Your task to perform on an android device: toggle improve location accuracy Image 0: 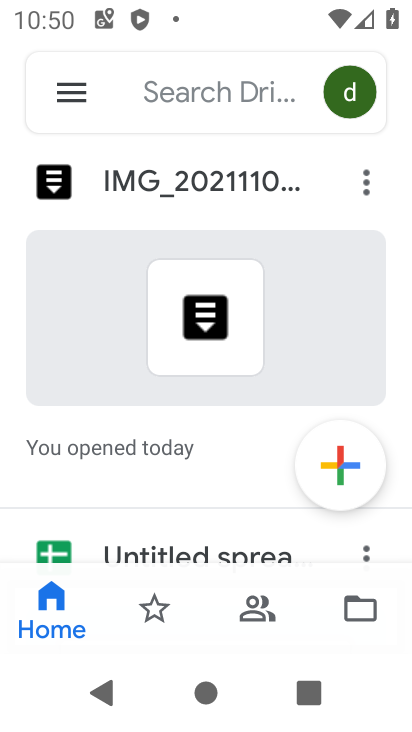
Step 0: press home button
Your task to perform on an android device: toggle improve location accuracy Image 1: 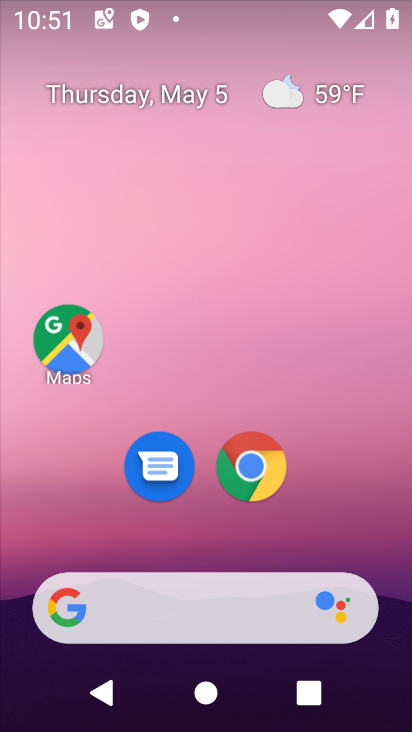
Step 1: drag from (338, 527) to (319, 184)
Your task to perform on an android device: toggle improve location accuracy Image 2: 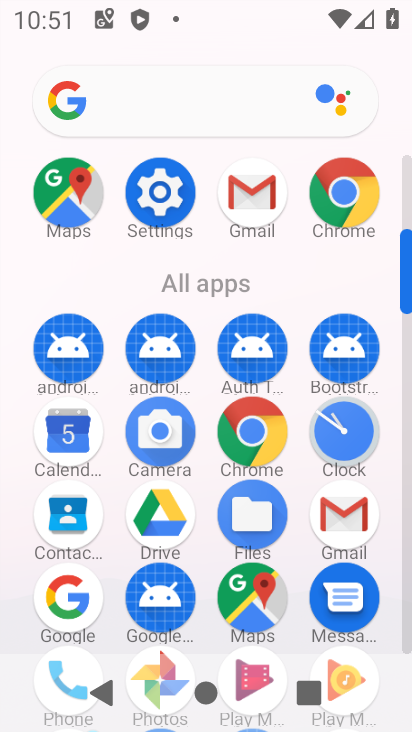
Step 2: click (156, 199)
Your task to perform on an android device: toggle improve location accuracy Image 3: 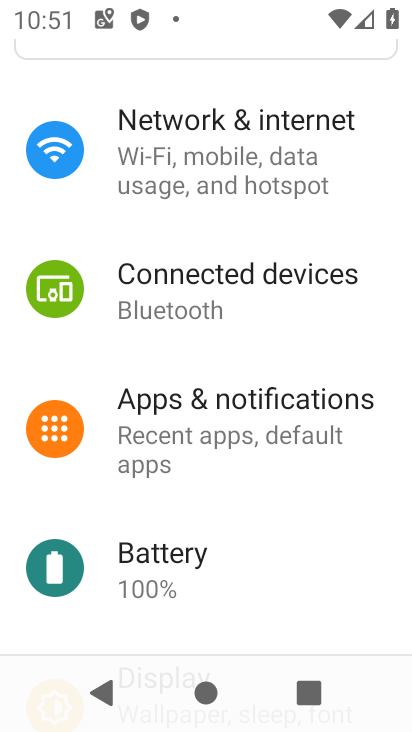
Step 3: drag from (232, 632) to (233, 229)
Your task to perform on an android device: toggle improve location accuracy Image 4: 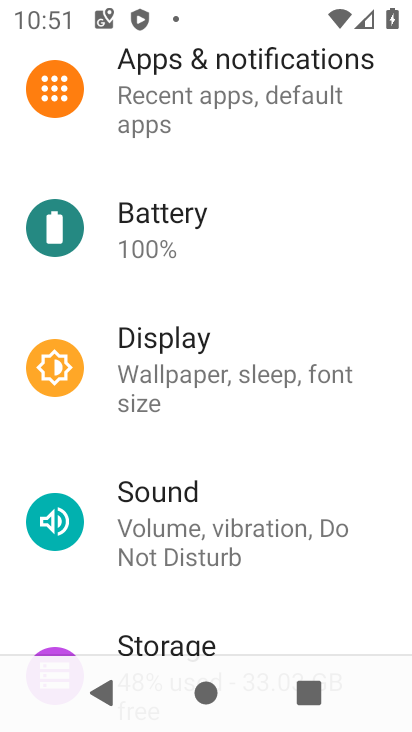
Step 4: drag from (204, 583) to (176, 261)
Your task to perform on an android device: toggle improve location accuracy Image 5: 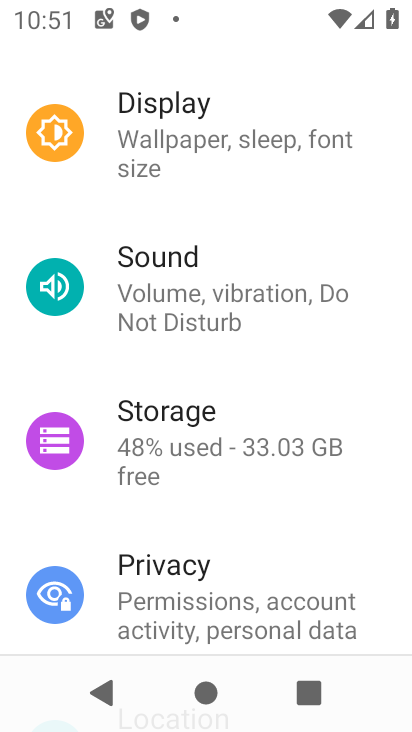
Step 5: drag from (171, 595) to (173, 372)
Your task to perform on an android device: toggle improve location accuracy Image 6: 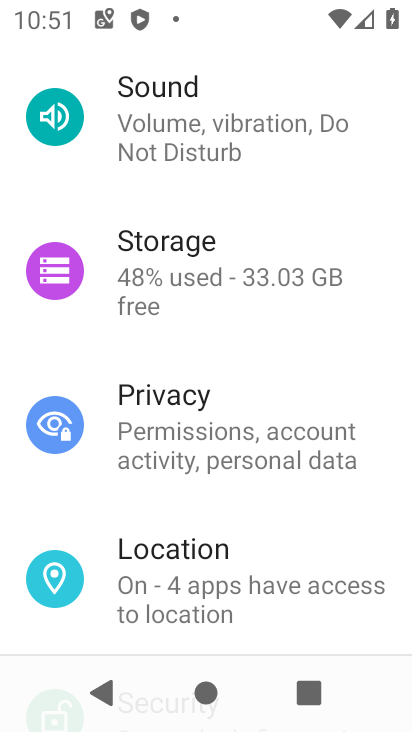
Step 6: click (141, 583)
Your task to perform on an android device: toggle improve location accuracy Image 7: 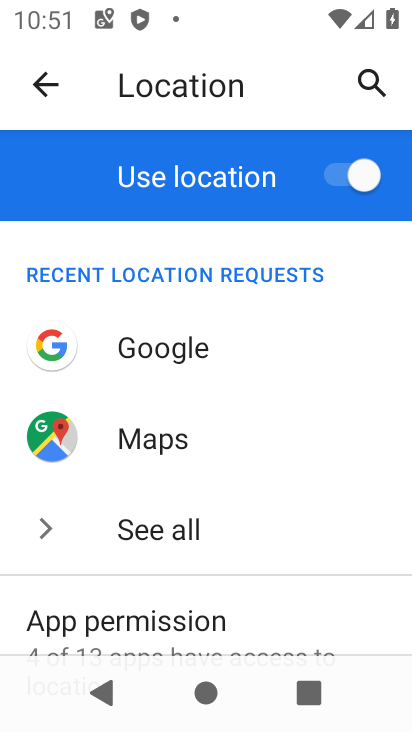
Step 7: drag from (141, 643) to (156, 413)
Your task to perform on an android device: toggle improve location accuracy Image 8: 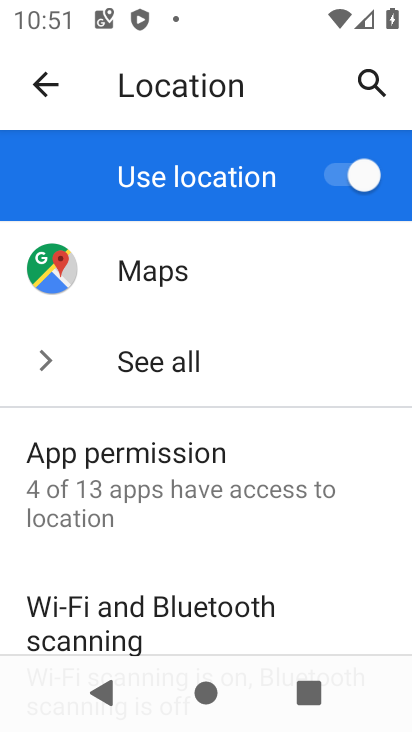
Step 8: drag from (161, 562) to (179, 237)
Your task to perform on an android device: toggle improve location accuracy Image 9: 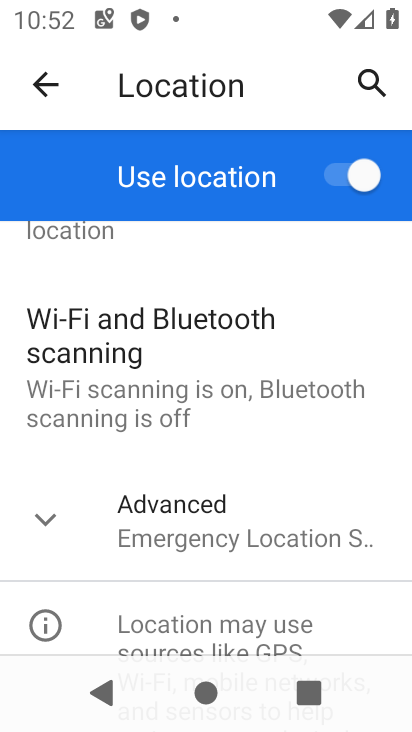
Step 9: drag from (175, 573) to (213, 299)
Your task to perform on an android device: toggle improve location accuracy Image 10: 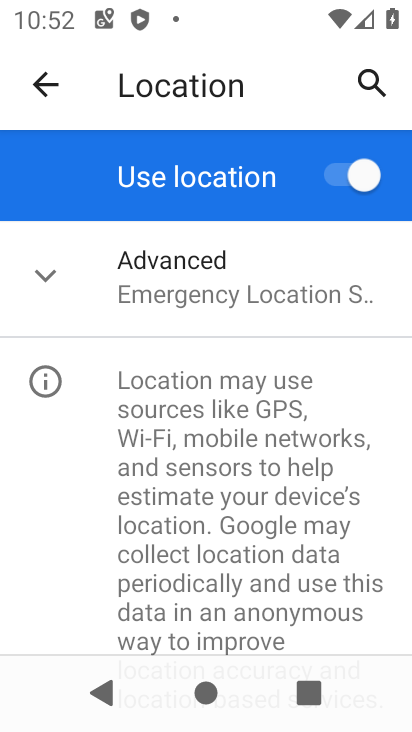
Step 10: drag from (211, 538) to (211, 253)
Your task to perform on an android device: toggle improve location accuracy Image 11: 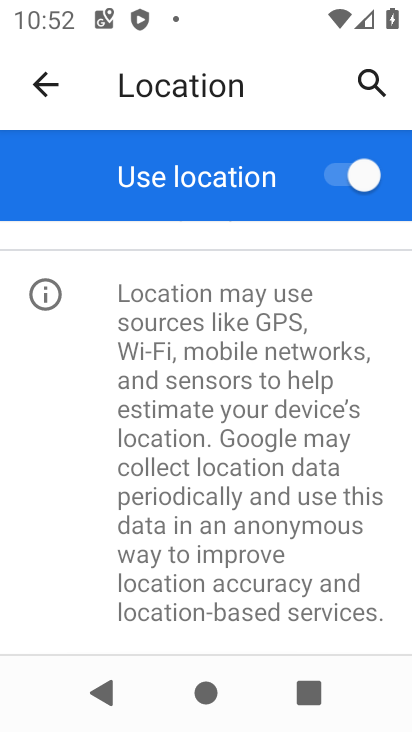
Step 11: click (198, 512)
Your task to perform on an android device: toggle improve location accuracy Image 12: 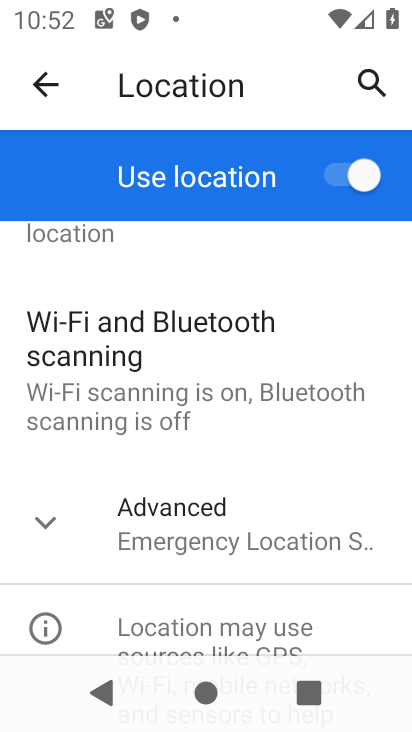
Step 12: click (224, 523)
Your task to perform on an android device: toggle improve location accuracy Image 13: 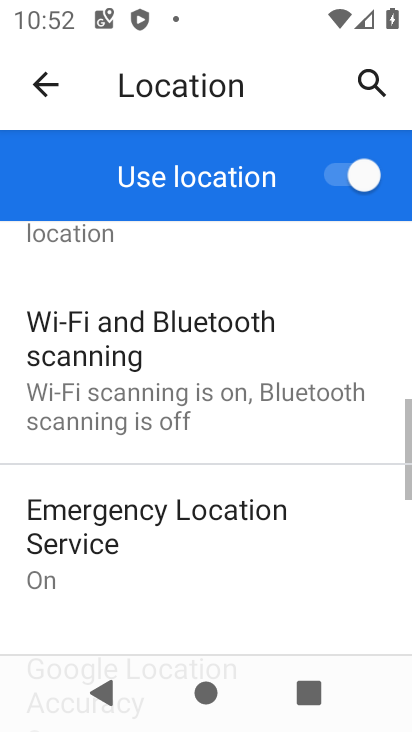
Step 13: drag from (236, 543) to (232, 241)
Your task to perform on an android device: toggle improve location accuracy Image 14: 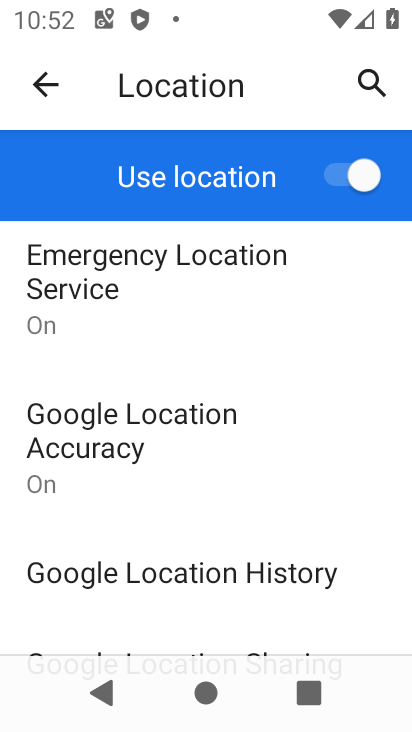
Step 14: click (134, 439)
Your task to perform on an android device: toggle improve location accuracy Image 15: 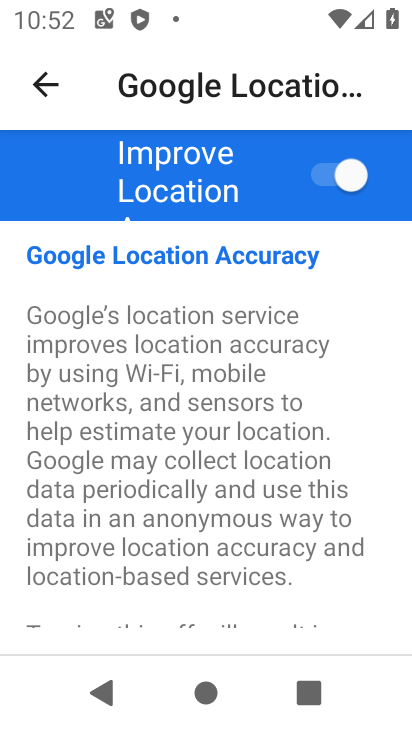
Step 15: click (336, 207)
Your task to perform on an android device: toggle improve location accuracy Image 16: 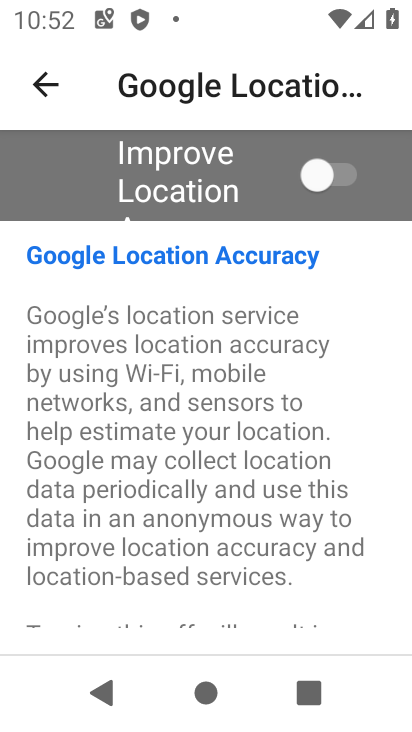
Step 16: task complete